Your task to perform on an android device: Open network settings Image 0: 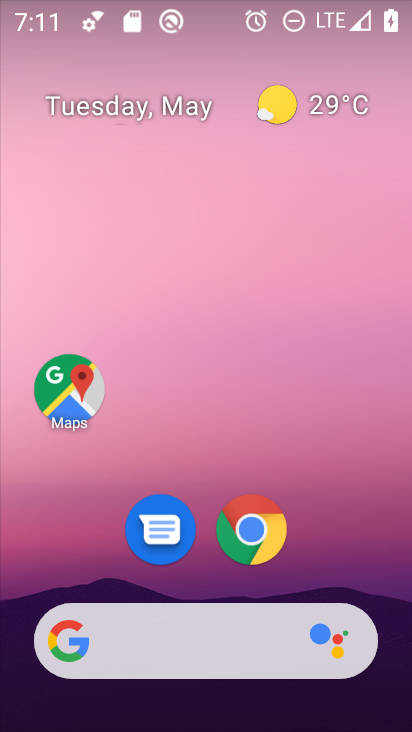
Step 0: drag from (384, 627) to (189, 3)
Your task to perform on an android device: Open network settings Image 1: 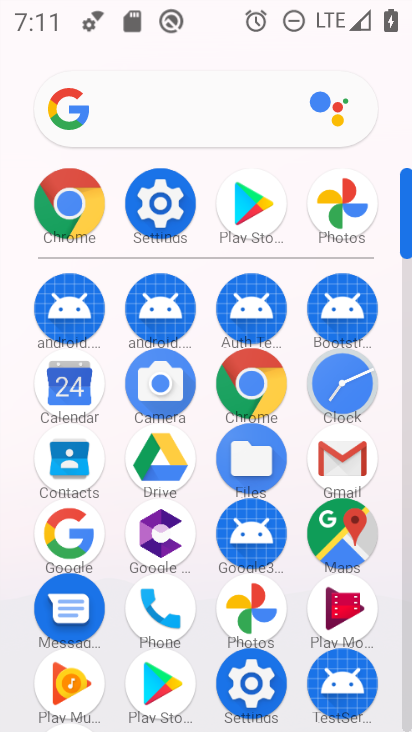
Step 1: click (174, 231)
Your task to perform on an android device: Open network settings Image 2: 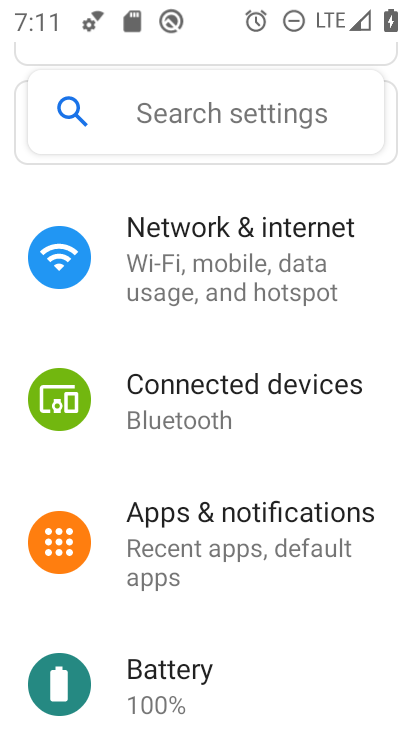
Step 2: click (210, 267)
Your task to perform on an android device: Open network settings Image 3: 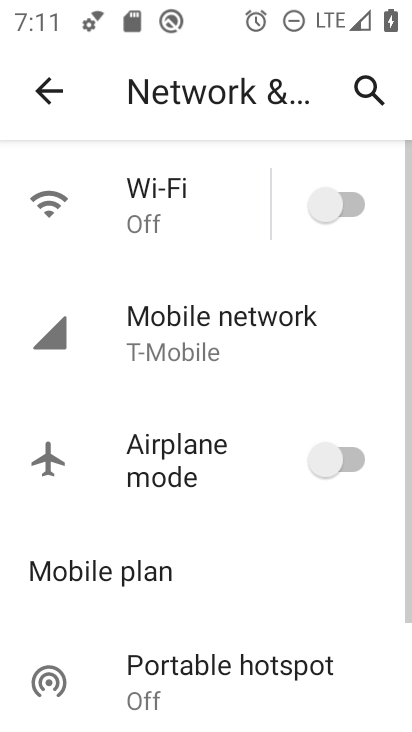
Step 3: task complete